Your task to perform on an android device: Search for Italian restaurants on Maps Image 0: 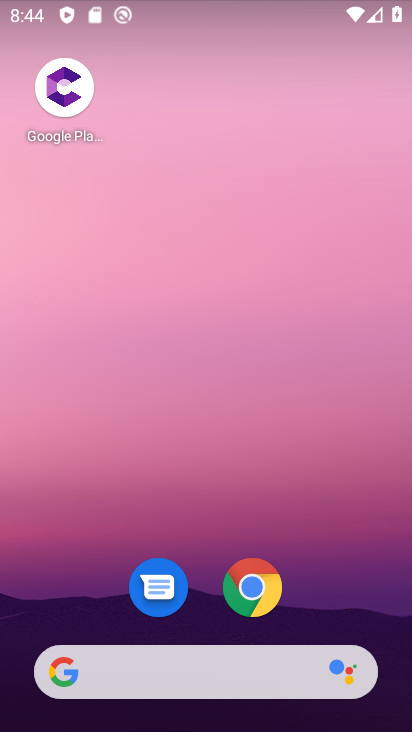
Step 0: drag from (349, 593) to (339, 58)
Your task to perform on an android device: Search for Italian restaurants on Maps Image 1: 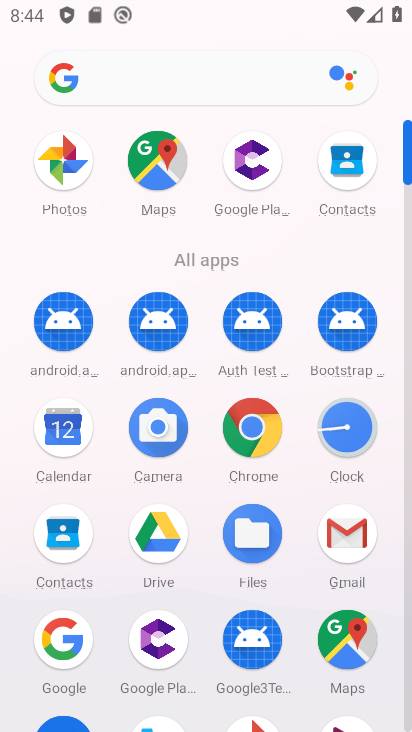
Step 1: click (158, 188)
Your task to perform on an android device: Search for Italian restaurants on Maps Image 2: 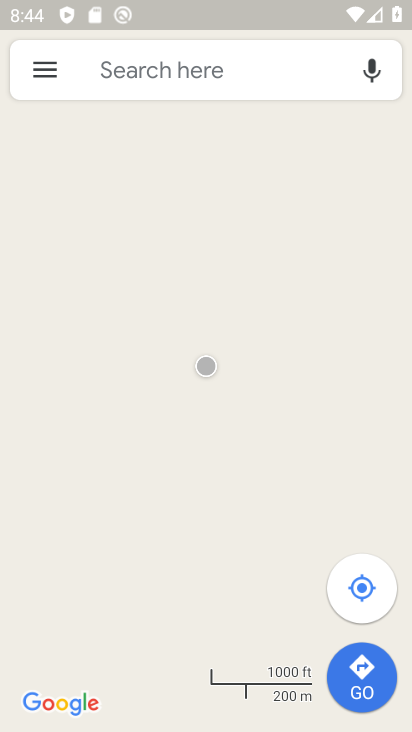
Step 2: click (238, 79)
Your task to perform on an android device: Search for Italian restaurants on Maps Image 3: 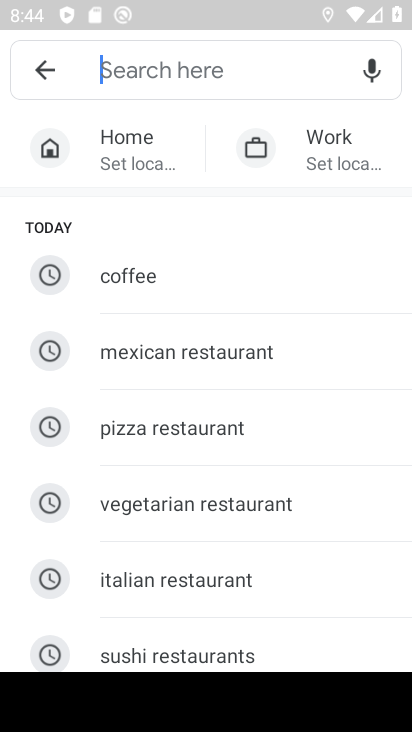
Step 3: type "Italian restaurants"
Your task to perform on an android device: Search for Italian restaurants on Maps Image 4: 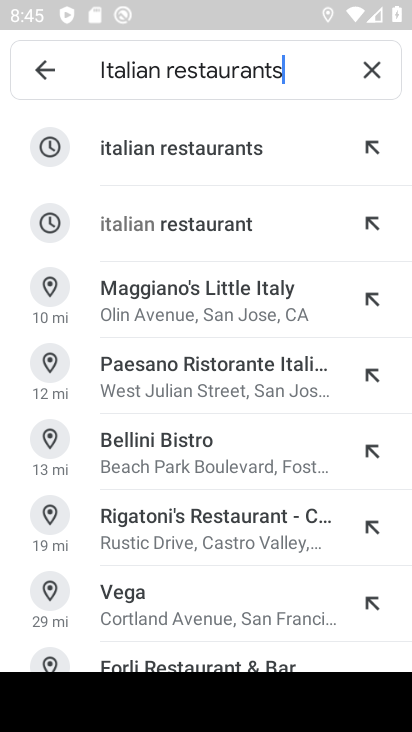
Step 4: press enter
Your task to perform on an android device: Search for Italian restaurants on Maps Image 5: 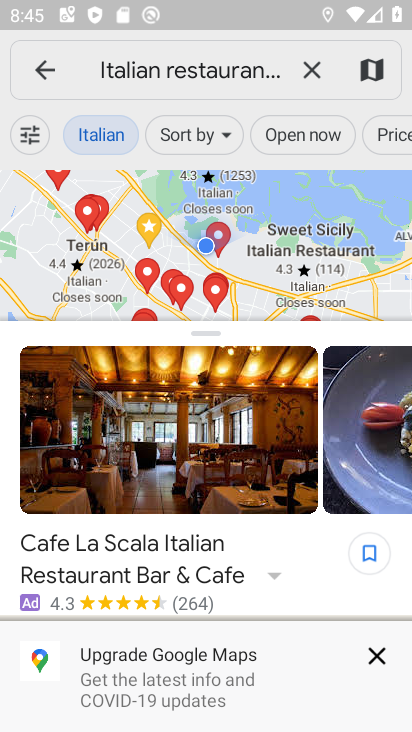
Step 5: task complete